Your task to perform on an android device: Add "razer blade" to the cart on walmart Image 0: 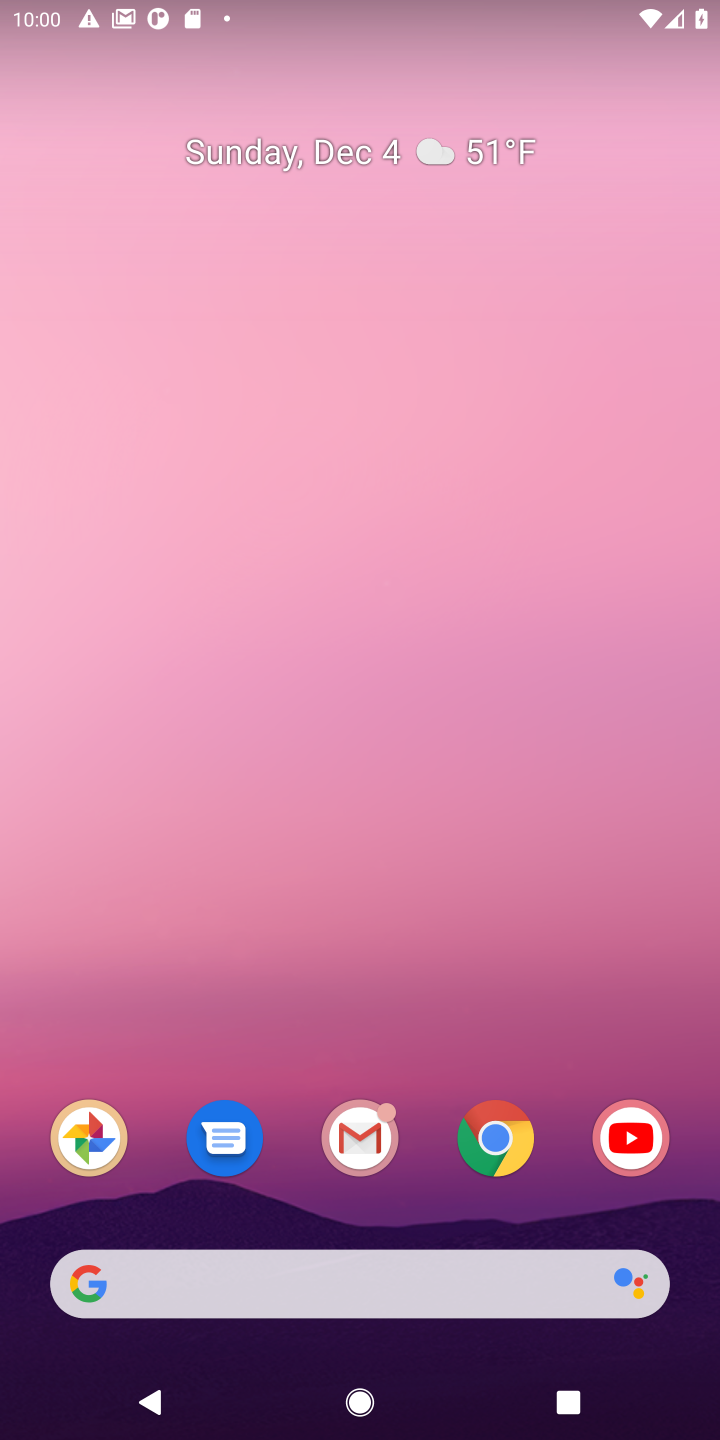
Step 0: click (518, 1146)
Your task to perform on an android device: Add "razer blade" to the cart on walmart Image 1: 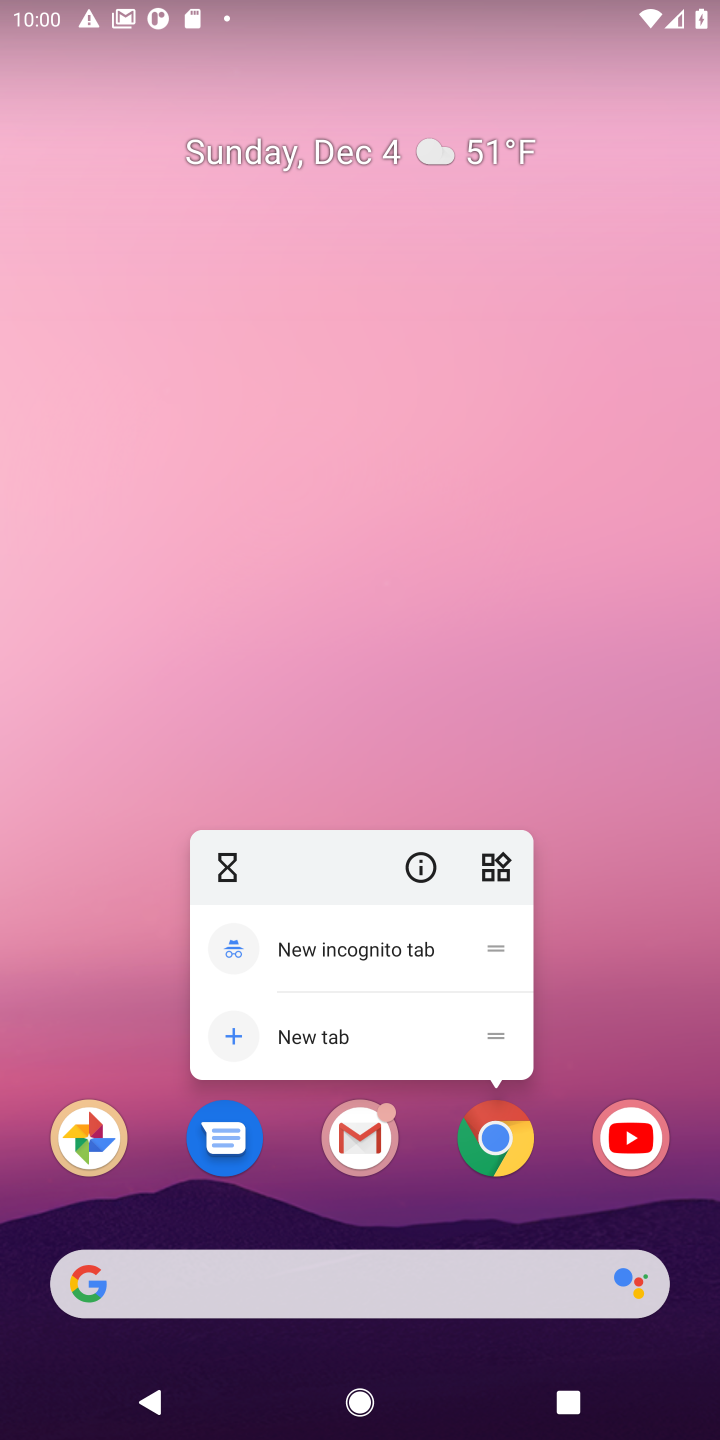
Step 1: click (515, 1144)
Your task to perform on an android device: Add "razer blade" to the cart on walmart Image 2: 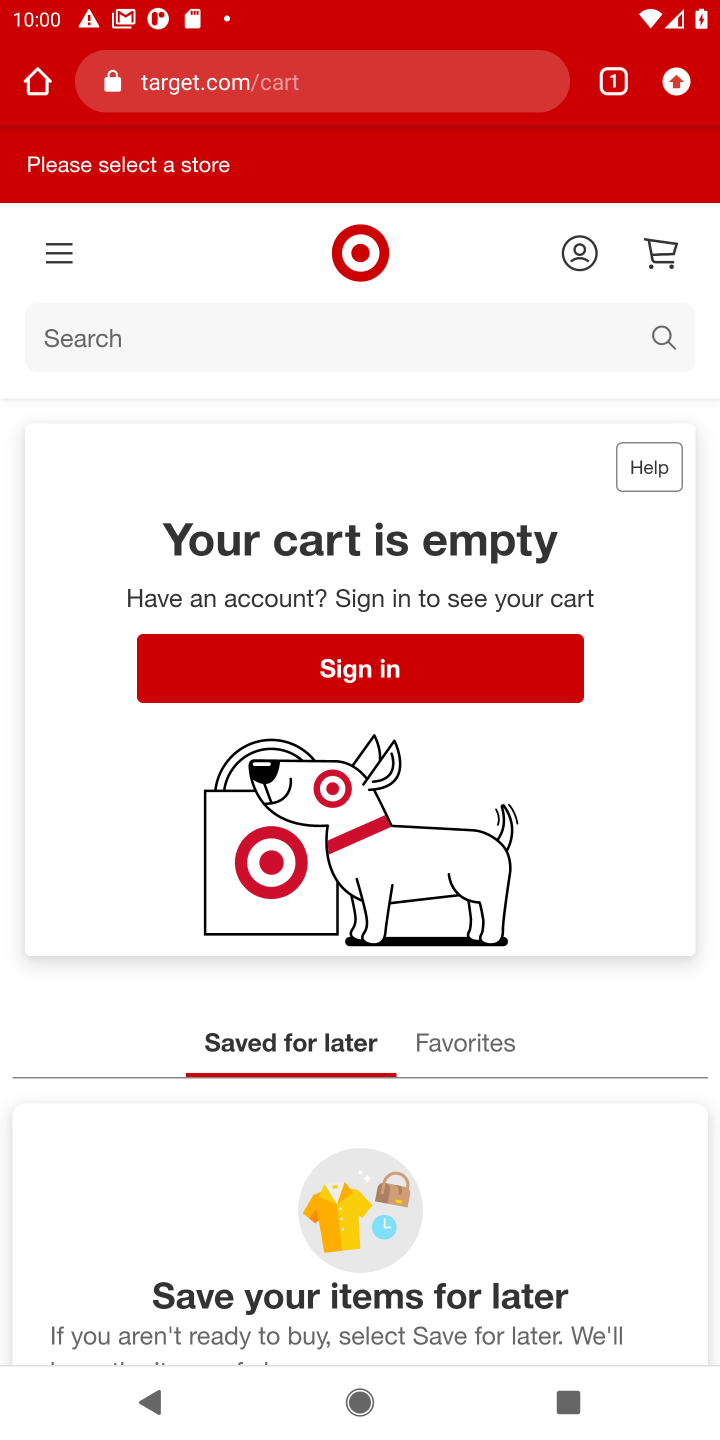
Step 2: click (419, 82)
Your task to perform on an android device: Add "razer blade" to the cart on walmart Image 3: 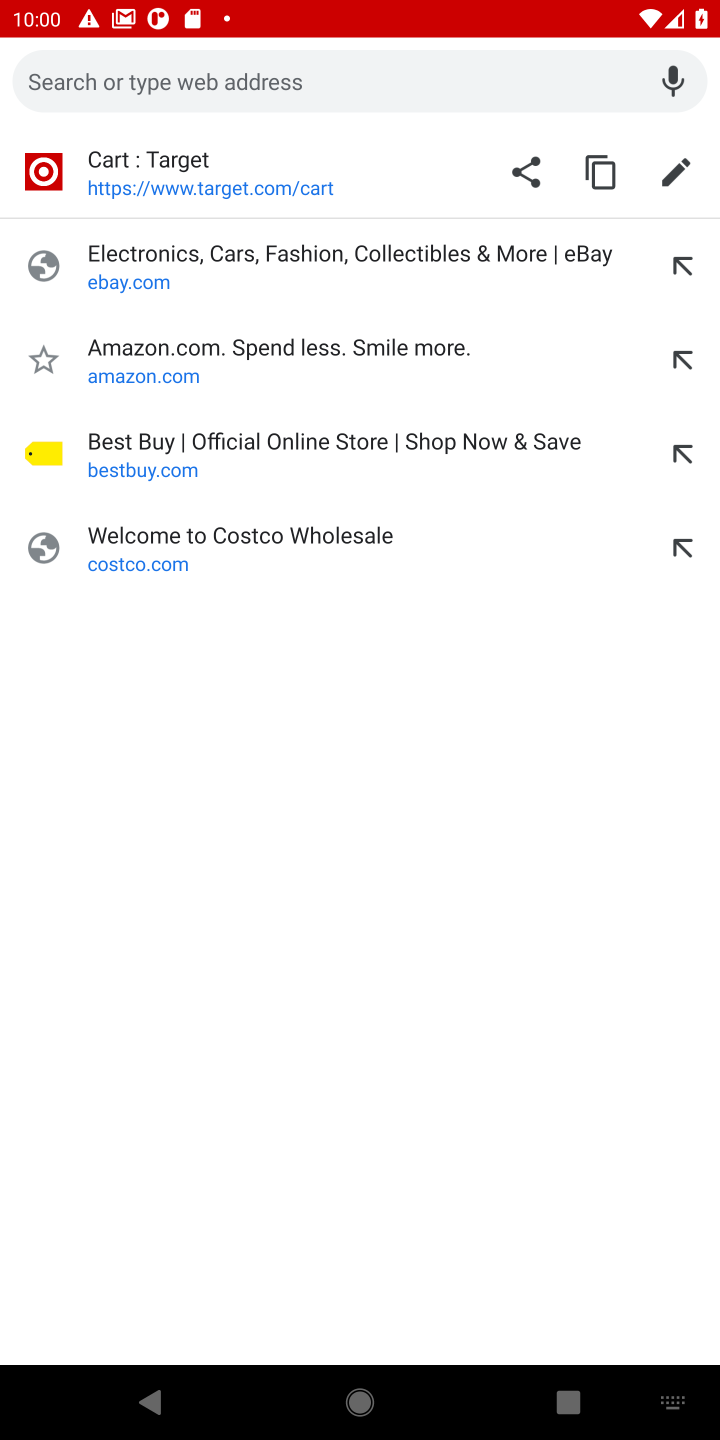
Step 3: press enter
Your task to perform on an android device: Add "razer blade" to the cart on walmart Image 4: 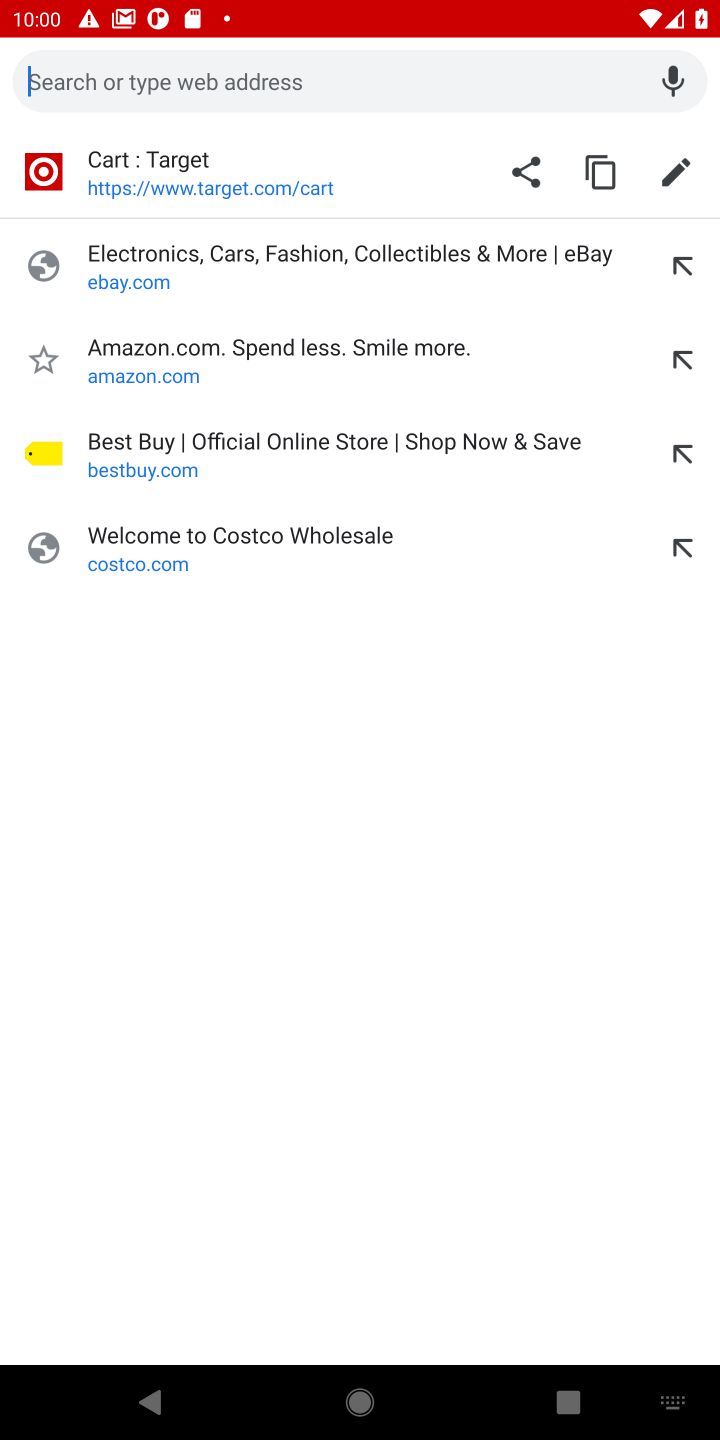
Step 4: type "walmart"
Your task to perform on an android device: Add "razer blade" to the cart on walmart Image 5: 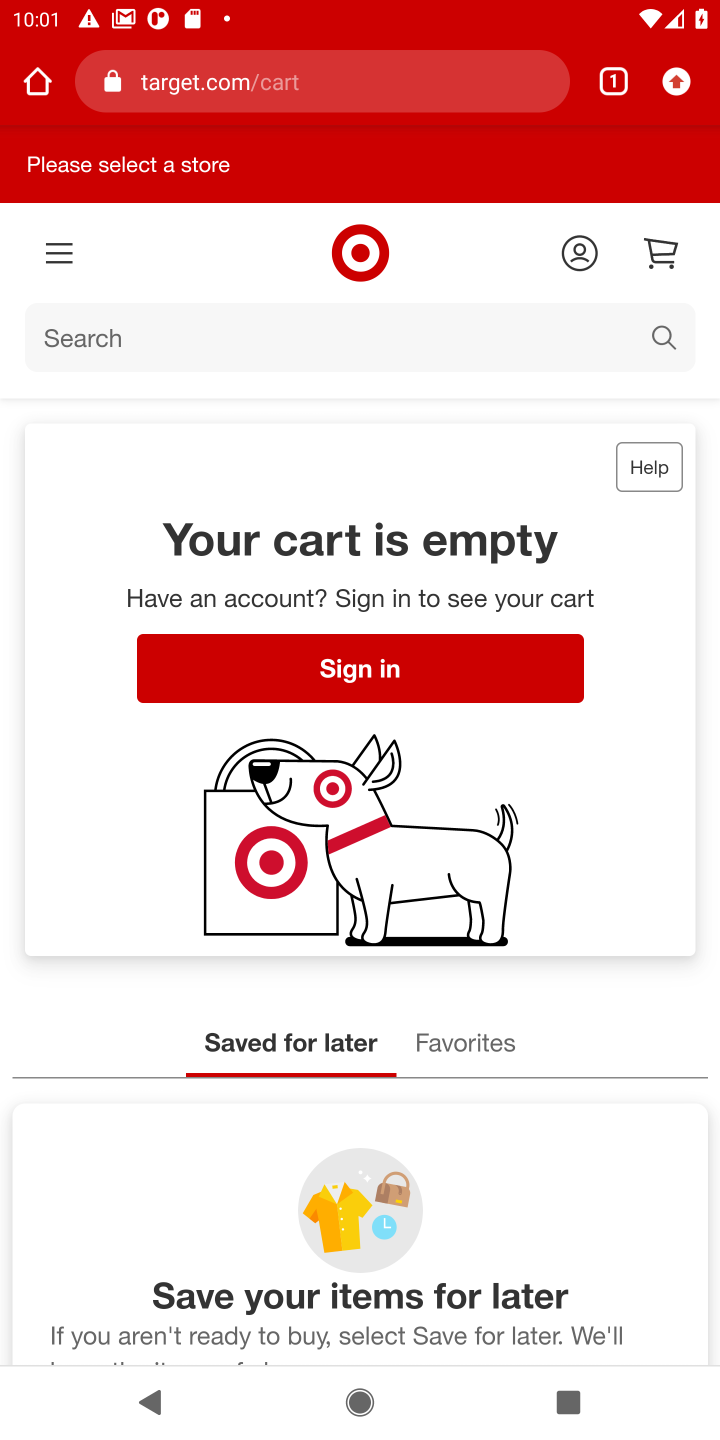
Step 5: click (435, 87)
Your task to perform on an android device: Add "razer blade" to the cart on walmart Image 6: 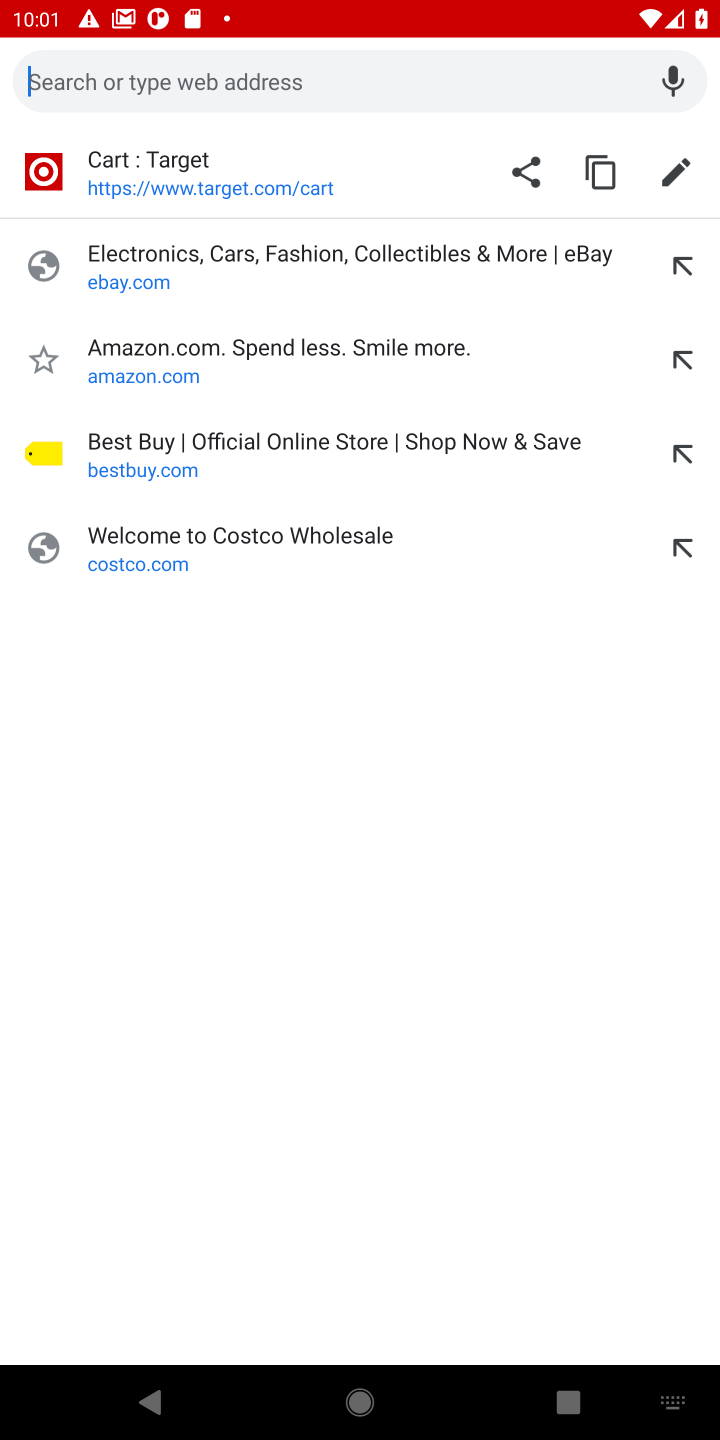
Step 6: type "walmart"
Your task to perform on an android device: Add "razer blade" to the cart on walmart Image 7: 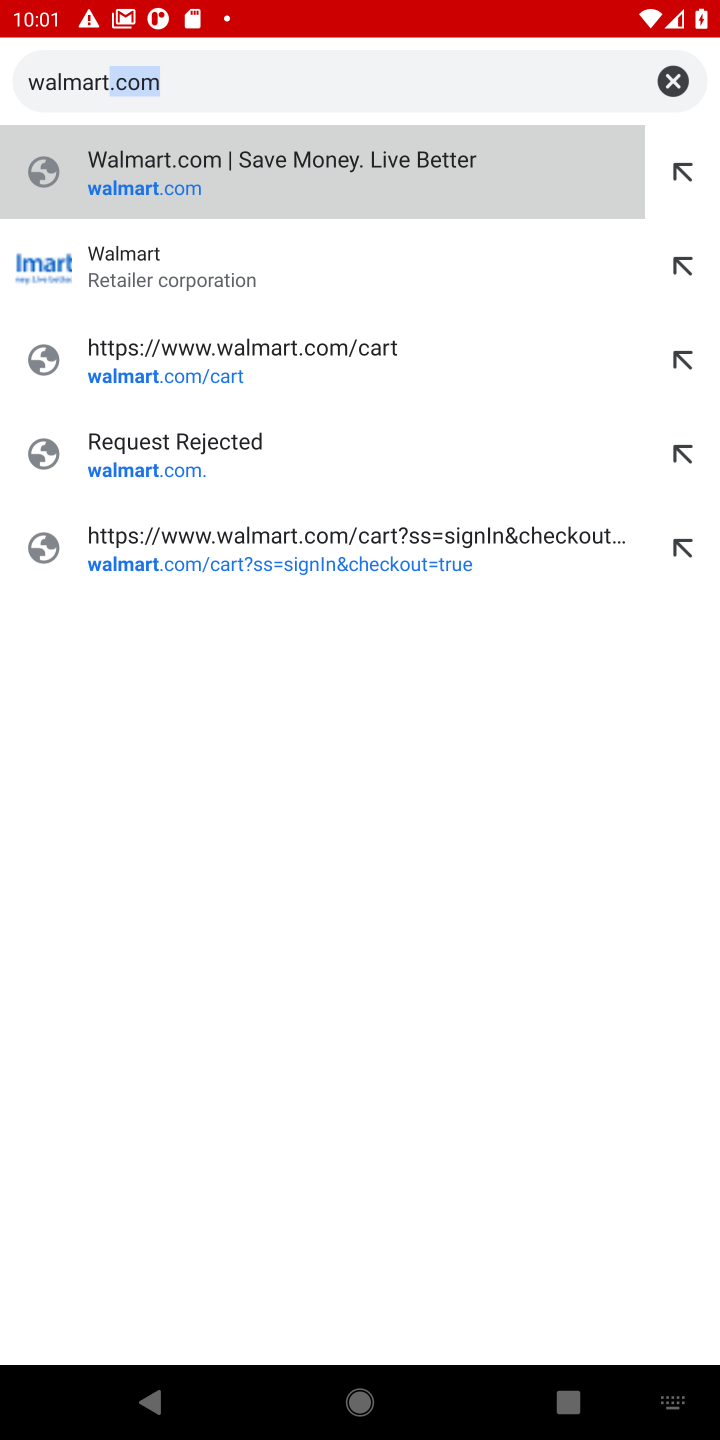
Step 7: press enter
Your task to perform on an android device: Add "razer blade" to the cart on walmart Image 8: 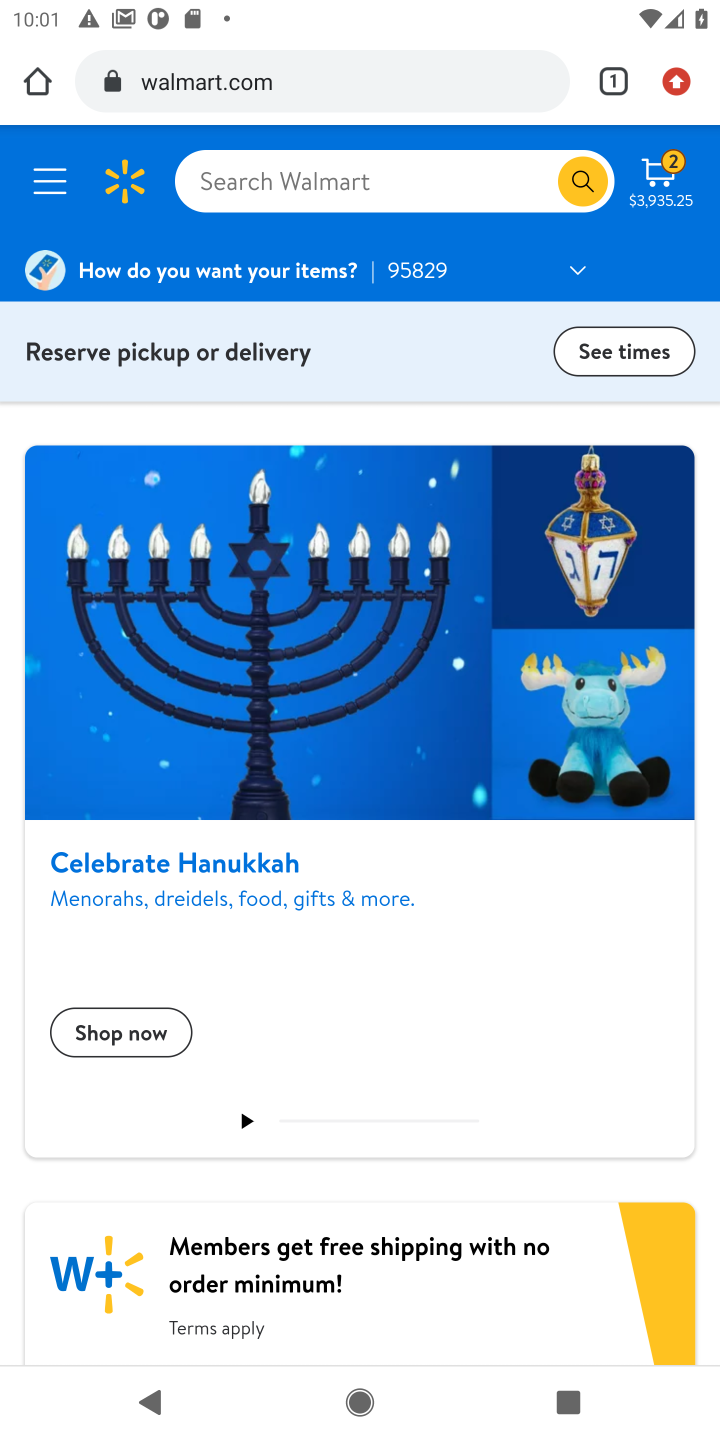
Step 8: click (461, 157)
Your task to perform on an android device: Add "razer blade" to the cart on walmart Image 9: 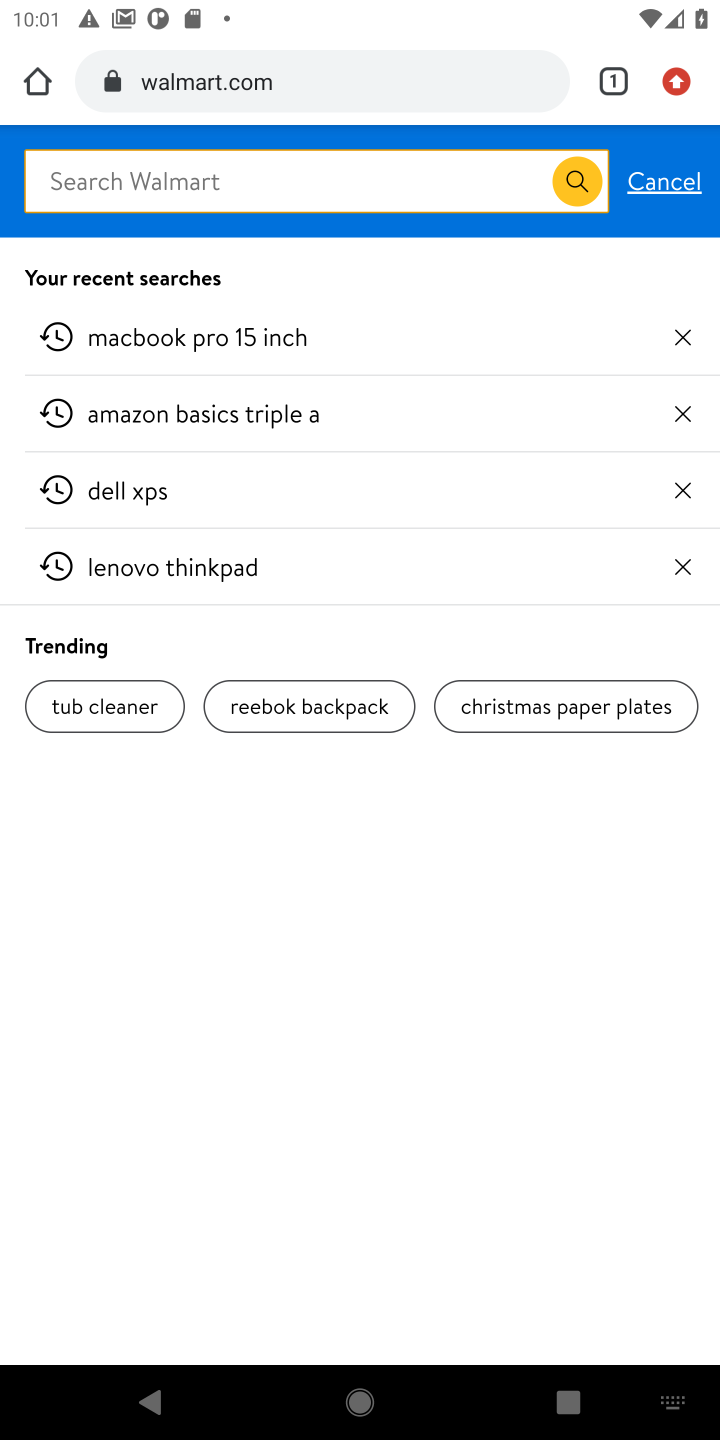
Step 9: type "razer blade"
Your task to perform on an android device: Add "razer blade" to the cart on walmart Image 10: 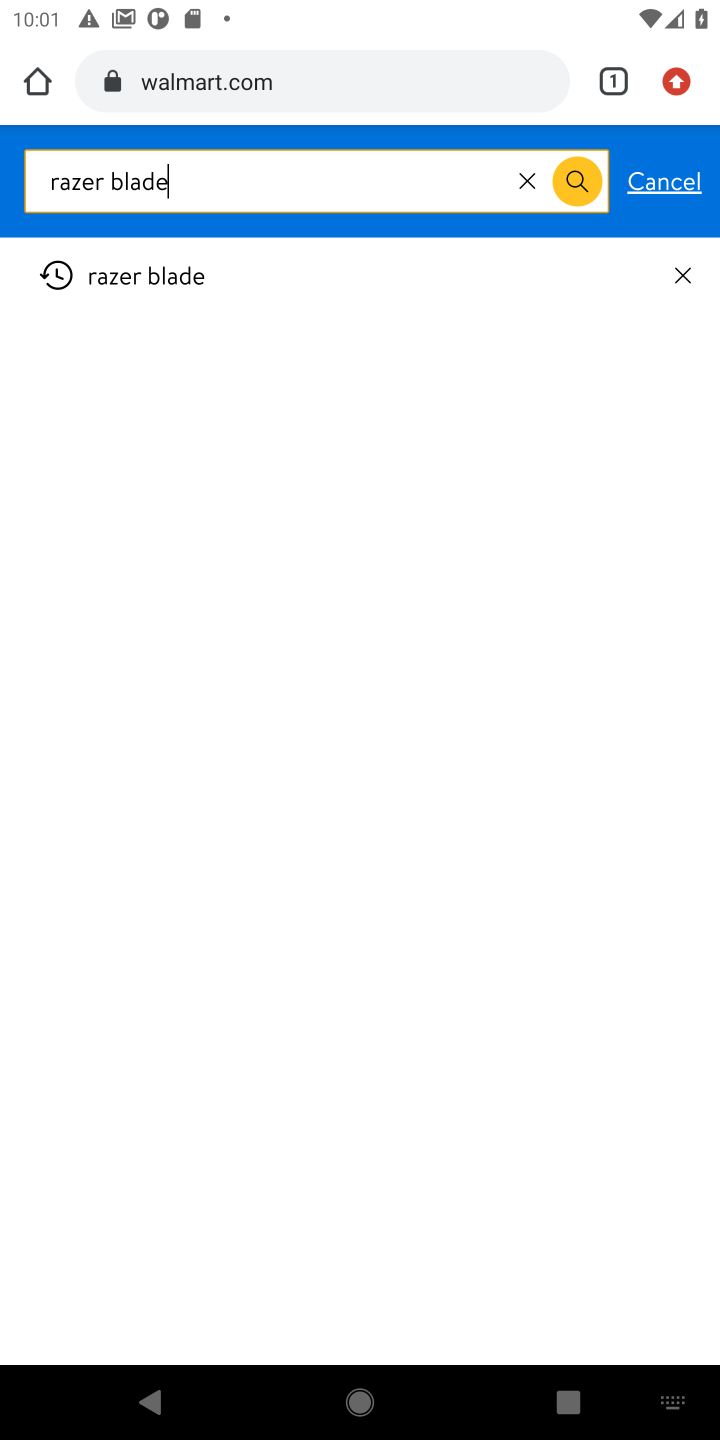
Step 10: press enter
Your task to perform on an android device: Add "razer blade" to the cart on walmart Image 11: 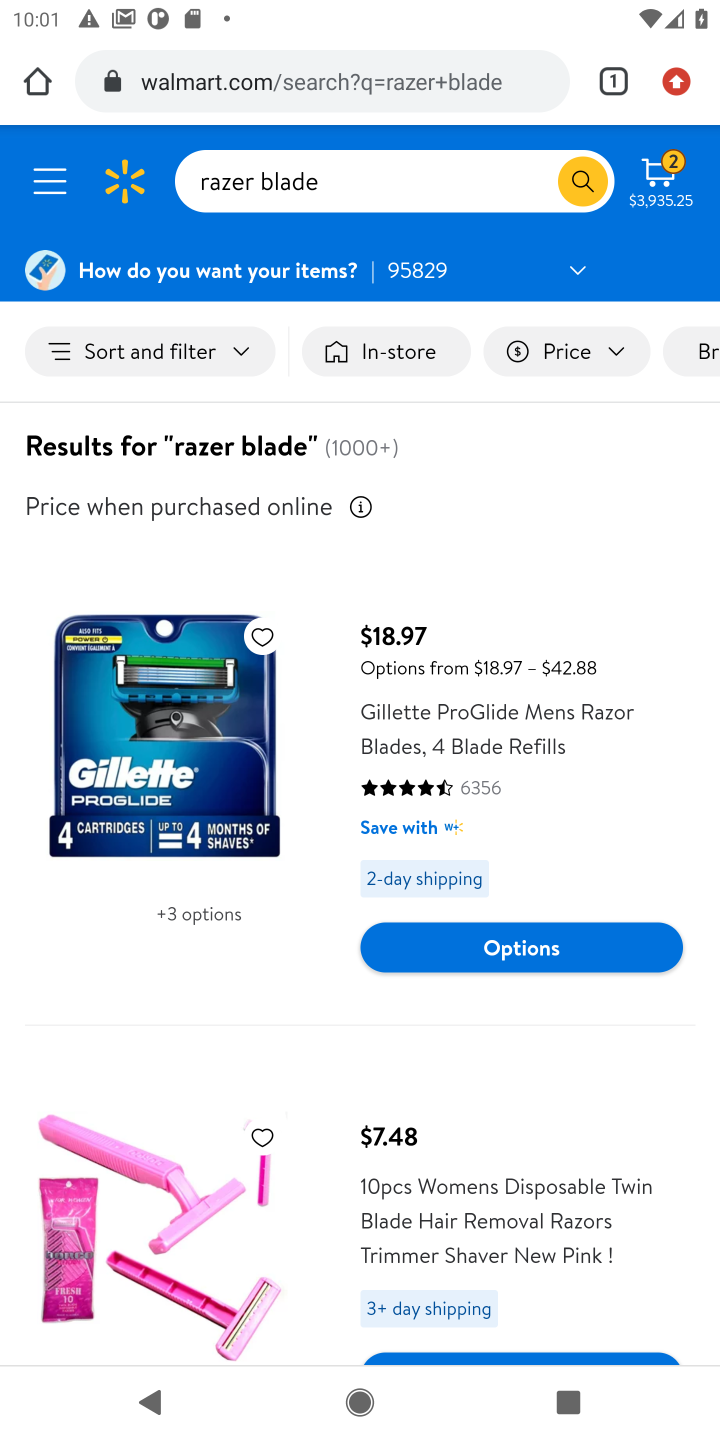
Step 11: task complete